Your task to perform on an android device: turn off location history Image 0: 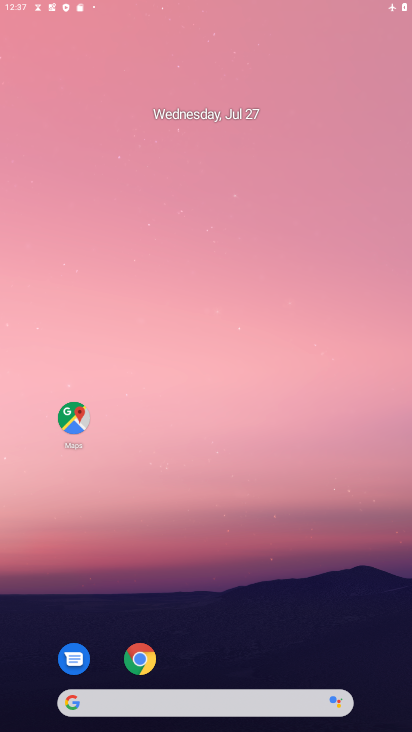
Step 0: press home button
Your task to perform on an android device: turn off location history Image 1: 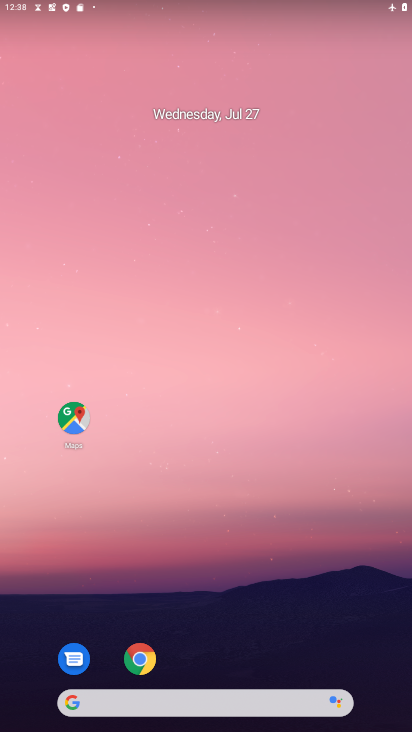
Step 1: drag from (215, 675) to (194, 154)
Your task to perform on an android device: turn off location history Image 2: 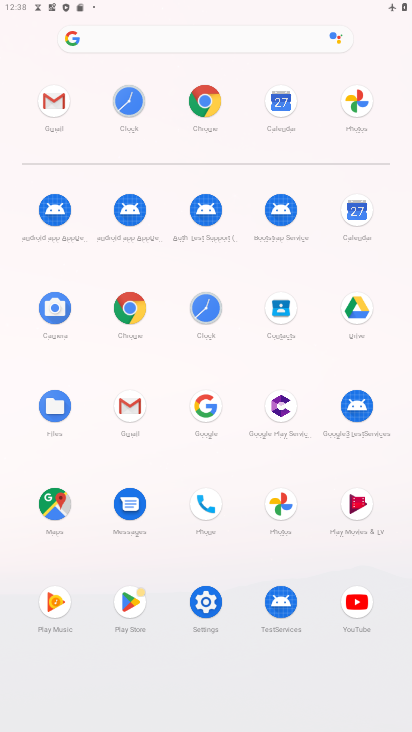
Step 2: click (203, 594)
Your task to perform on an android device: turn off location history Image 3: 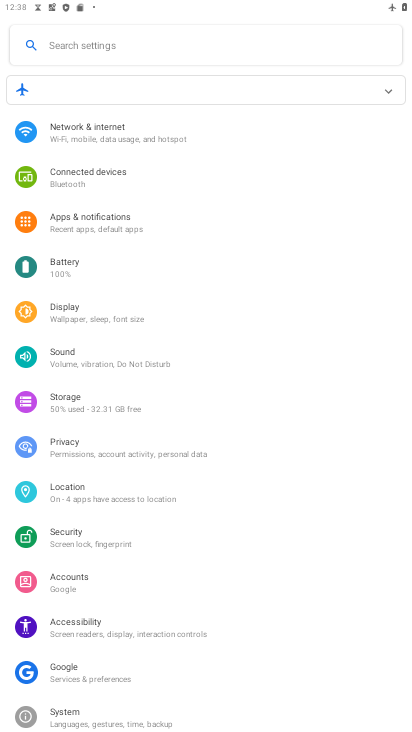
Step 3: click (94, 491)
Your task to perform on an android device: turn off location history Image 4: 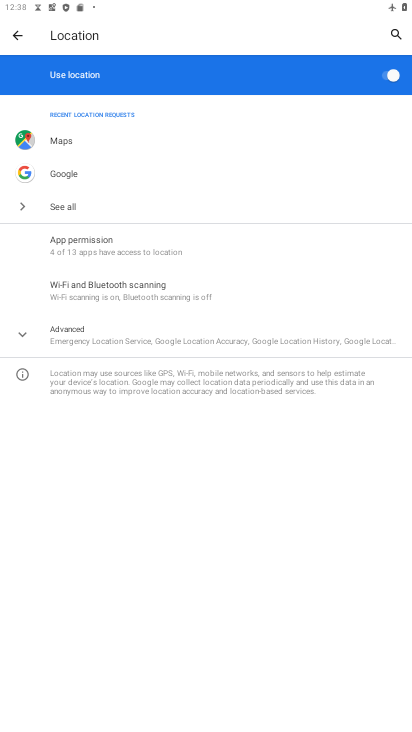
Step 4: click (18, 336)
Your task to perform on an android device: turn off location history Image 5: 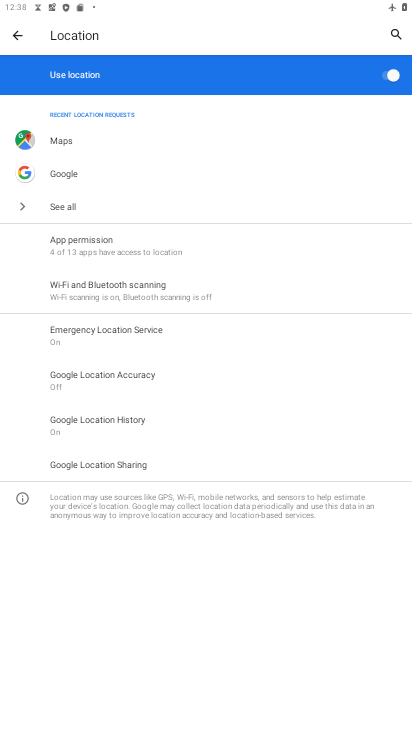
Step 5: click (93, 422)
Your task to perform on an android device: turn off location history Image 6: 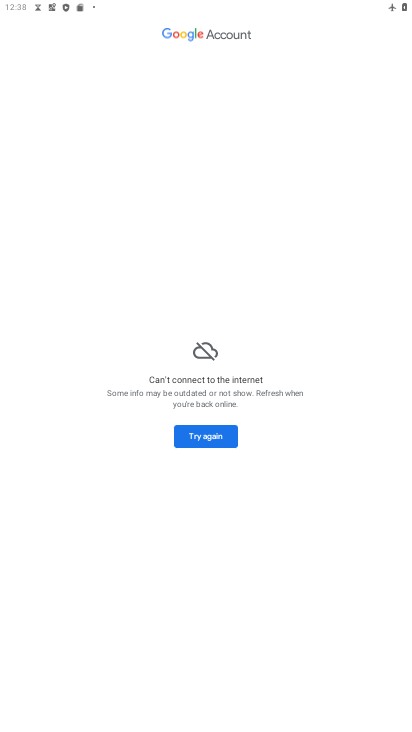
Step 6: click (204, 434)
Your task to perform on an android device: turn off location history Image 7: 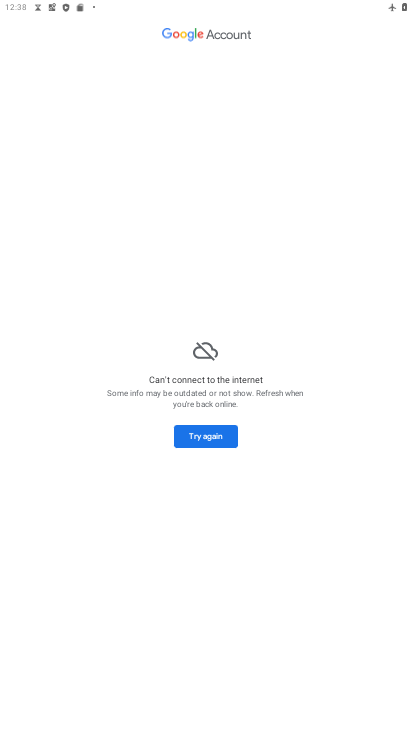
Step 7: task complete